Your task to perform on an android device: star an email in the gmail app Image 0: 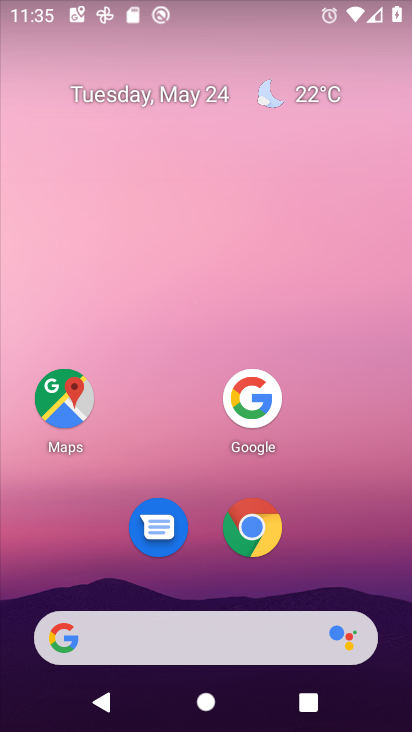
Step 0: press home button
Your task to perform on an android device: star an email in the gmail app Image 1: 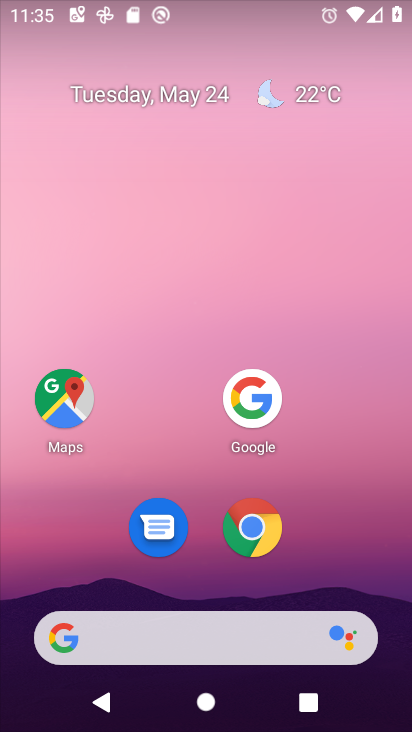
Step 1: drag from (209, 622) to (310, 194)
Your task to perform on an android device: star an email in the gmail app Image 2: 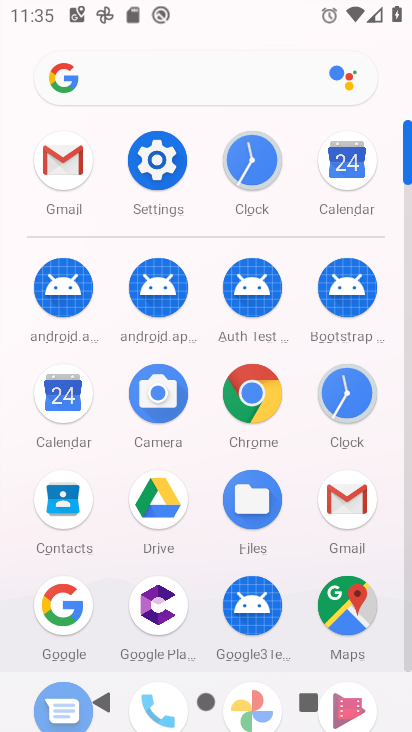
Step 2: click (61, 162)
Your task to perform on an android device: star an email in the gmail app Image 3: 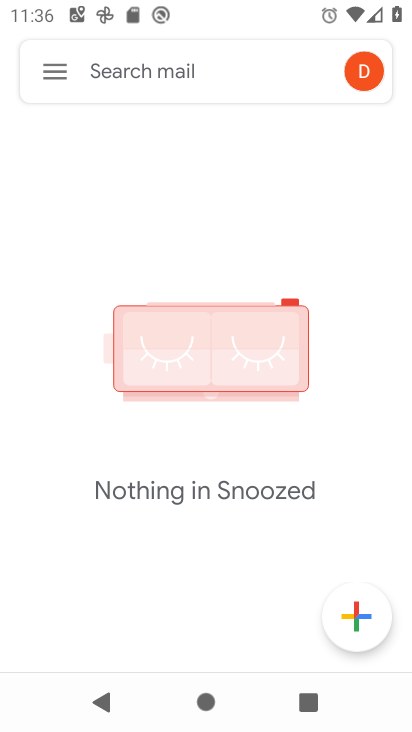
Step 3: click (58, 76)
Your task to perform on an android device: star an email in the gmail app Image 4: 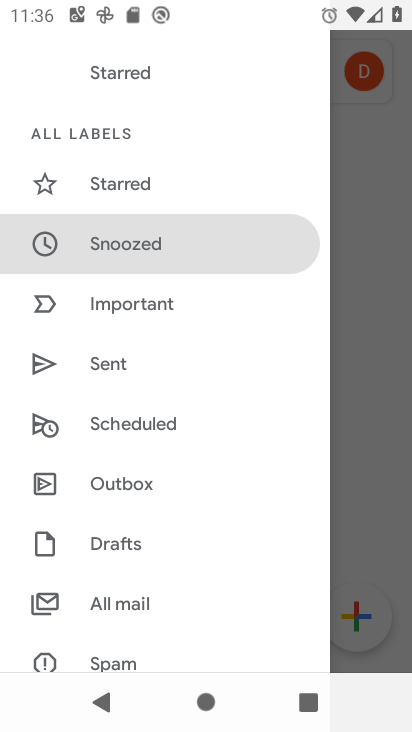
Step 4: drag from (199, 592) to (273, 354)
Your task to perform on an android device: star an email in the gmail app Image 5: 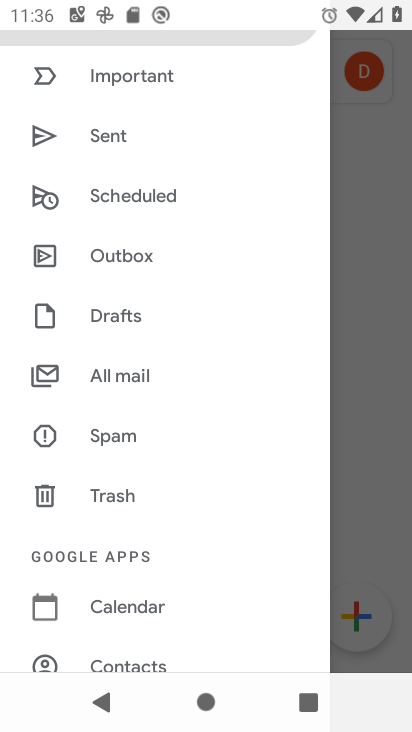
Step 5: click (134, 371)
Your task to perform on an android device: star an email in the gmail app Image 6: 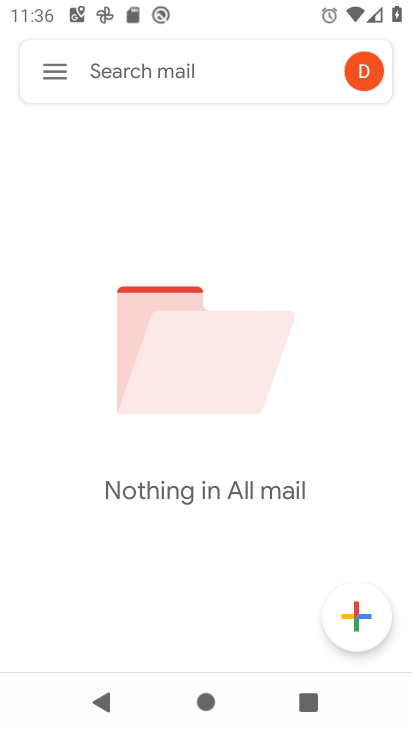
Step 6: task complete